Your task to perform on an android device: stop showing notifications on the lock screen Image 0: 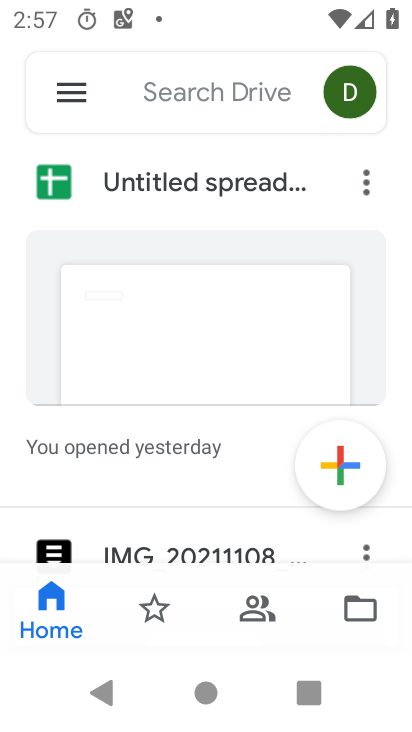
Step 0: drag from (193, 481) to (248, 37)
Your task to perform on an android device: stop showing notifications on the lock screen Image 1: 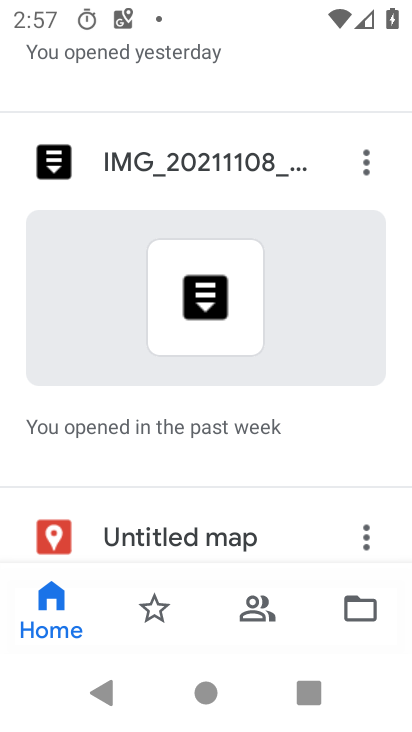
Step 1: press home button
Your task to perform on an android device: stop showing notifications on the lock screen Image 2: 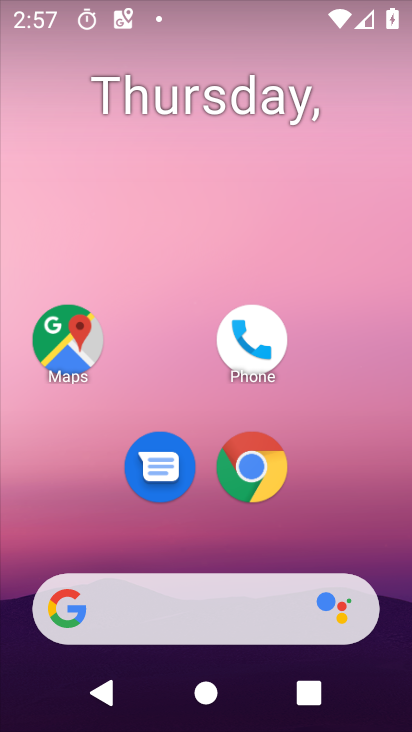
Step 2: drag from (195, 545) to (228, 284)
Your task to perform on an android device: stop showing notifications on the lock screen Image 3: 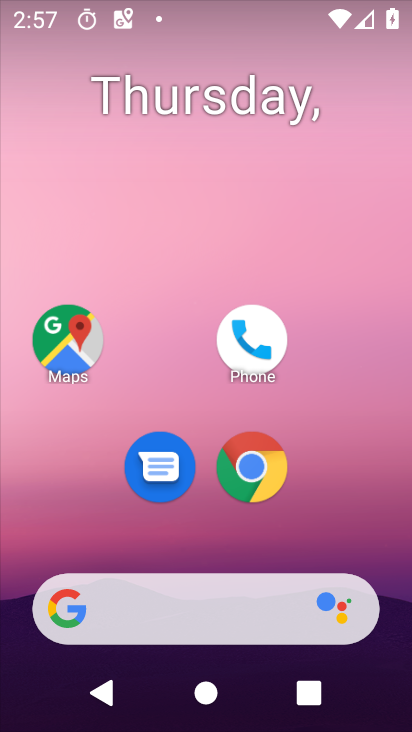
Step 3: click (216, 133)
Your task to perform on an android device: stop showing notifications on the lock screen Image 4: 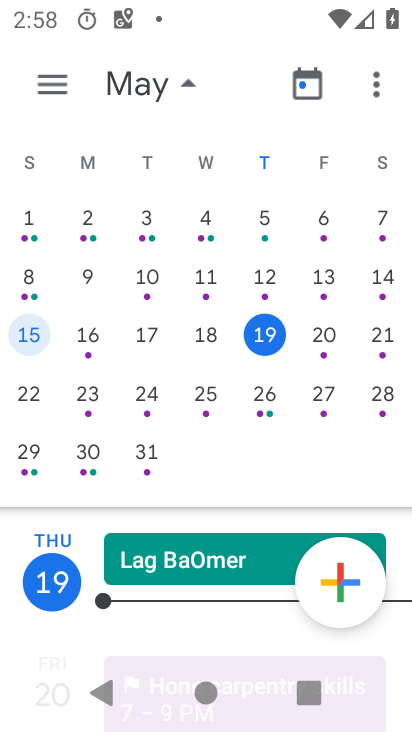
Step 4: press home button
Your task to perform on an android device: stop showing notifications on the lock screen Image 5: 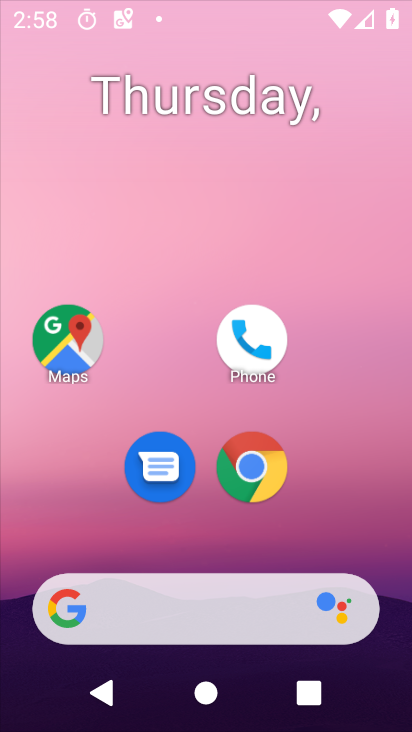
Step 5: drag from (247, 436) to (272, 122)
Your task to perform on an android device: stop showing notifications on the lock screen Image 6: 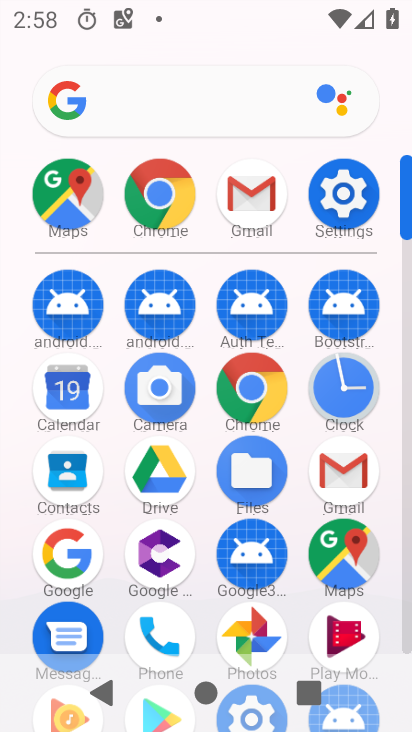
Step 6: click (341, 200)
Your task to perform on an android device: stop showing notifications on the lock screen Image 7: 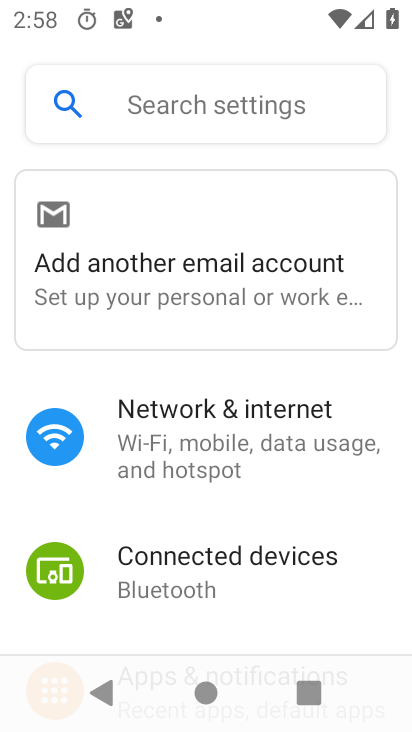
Step 7: drag from (240, 580) to (269, 222)
Your task to perform on an android device: stop showing notifications on the lock screen Image 8: 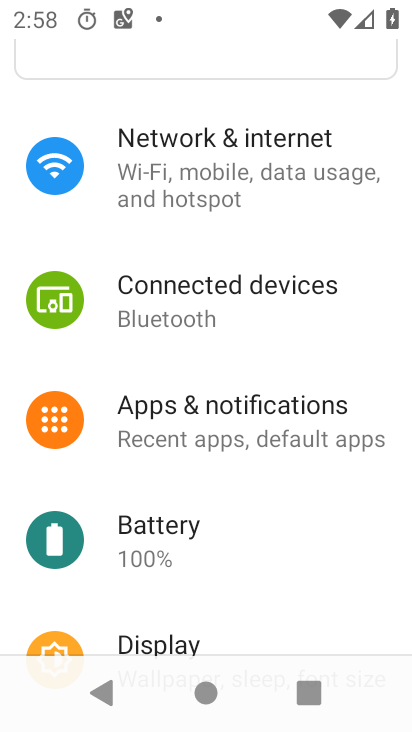
Step 8: click (258, 437)
Your task to perform on an android device: stop showing notifications on the lock screen Image 9: 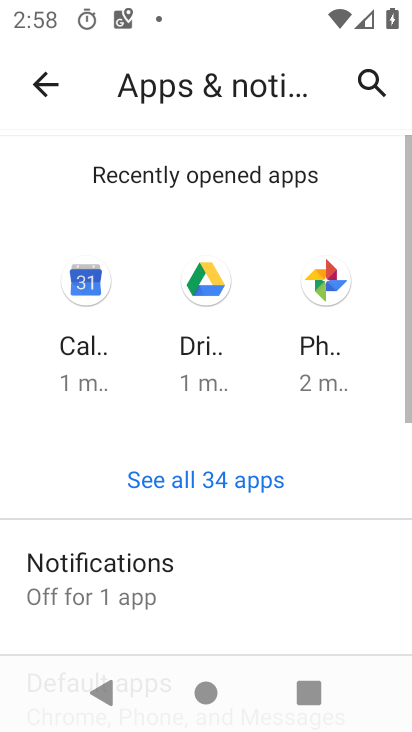
Step 9: click (176, 571)
Your task to perform on an android device: stop showing notifications on the lock screen Image 10: 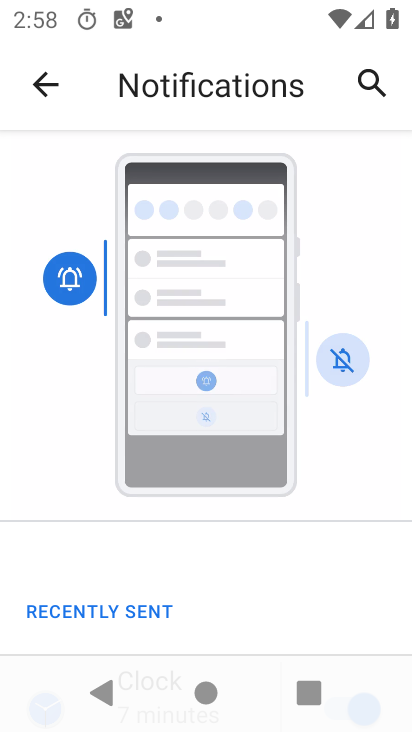
Step 10: drag from (205, 573) to (272, 241)
Your task to perform on an android device: stop showing notifications on the lock screen Image 11: 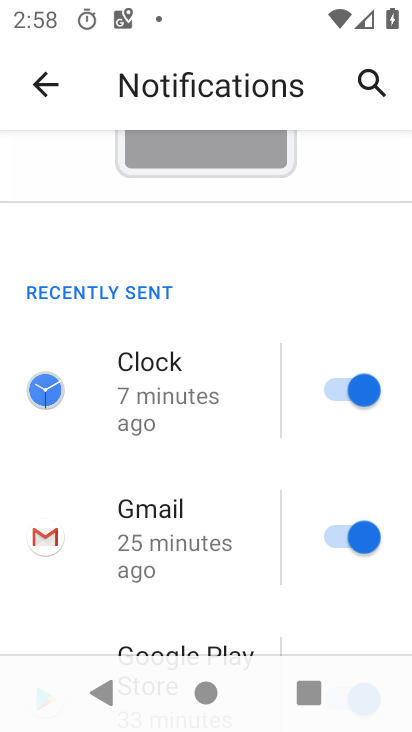
Step 11: drag from (246, 560) to (288, 229)
Your task to perform on an android device: stop showing notifications on the lock screen Image 12: 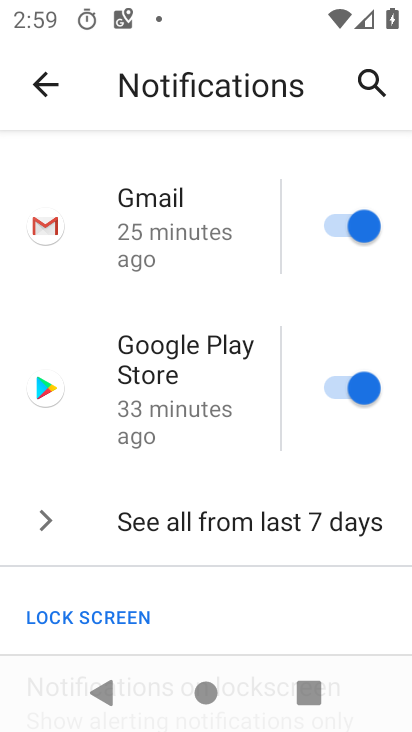
Step 12: drag from (225, 542) to (222, 297)
Your task to perform on an android device: stop showing notifications on the lock screen Image 13: 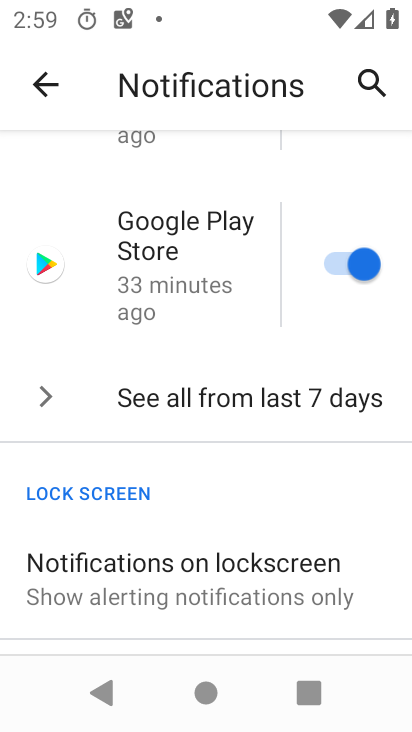
Step 13: drag from (241, 582) to (291, 340)
Your task to perform on an android device: stop showing notifications on the lock screen Image 14: 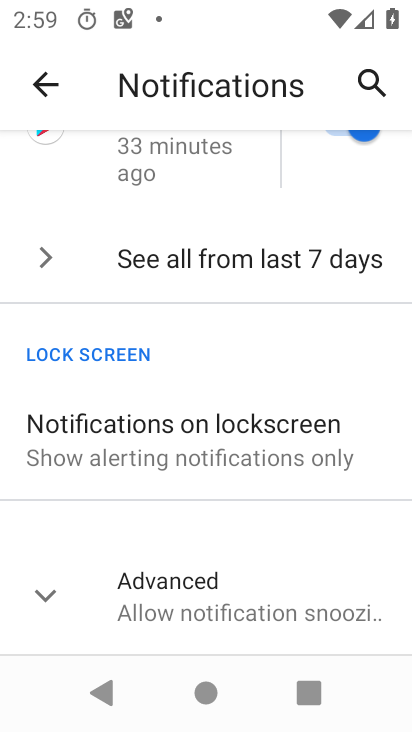
Step 14: click (174, 465)
Your task to perform on an android device: stop showing notifications on the lock screen Image 15: 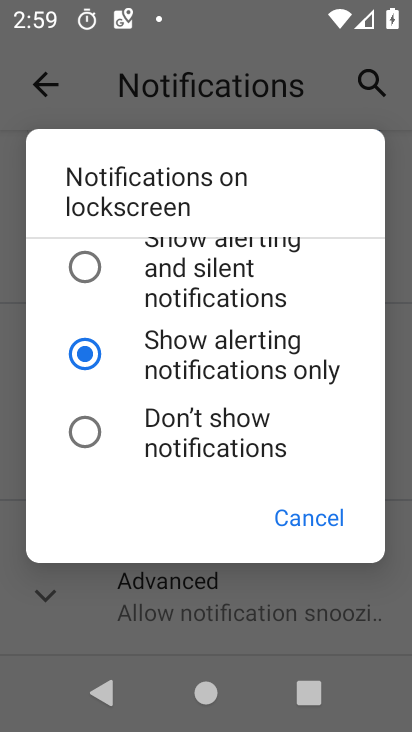
Step 15: click (108, 245)
Your task to perform on an android device: stop showing notifications on the lock screen Image 16: 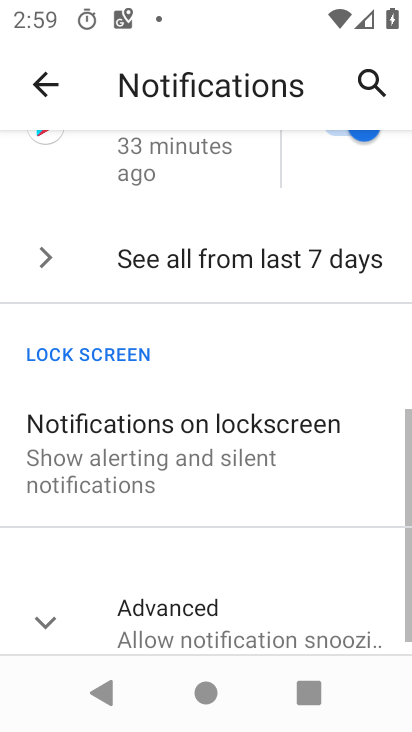
Step 16: task complete